Your task to perform on an android device: set the timer Image 0: 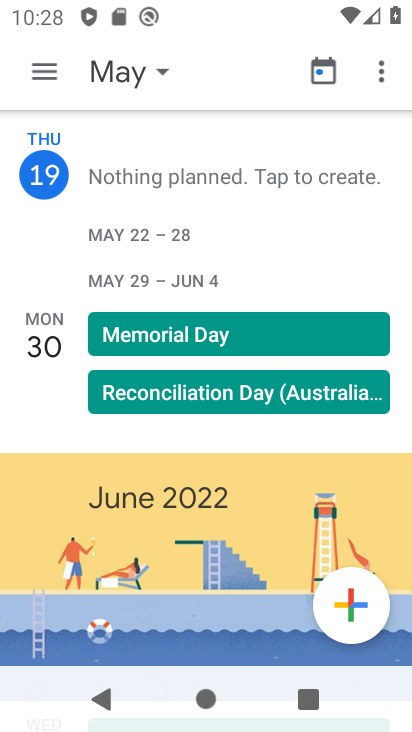
Step 0: press back button
Your task to perform on an android device: set the timer Image 1: 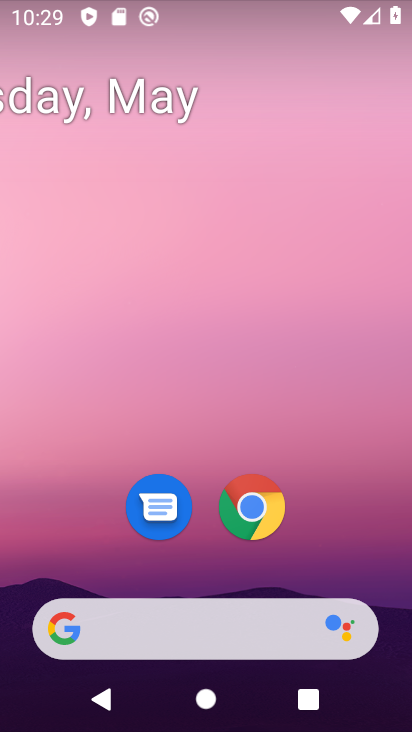
Step 1: drag from (356, 513) to (249, 35)
Your task to perform on an android device: set the timer Image 2: 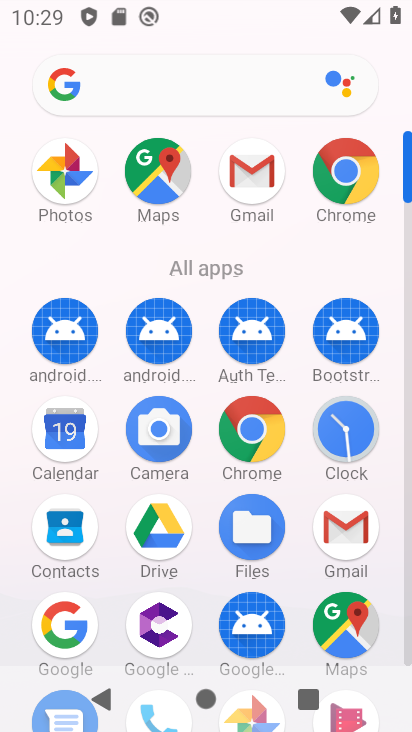
Step 2: drag from (12, 509) to (14, 213)
Your task to perform on an android device: set the timer Image 3: 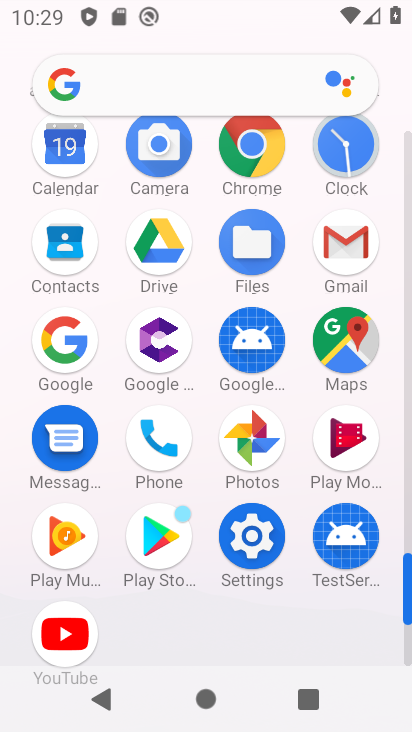
Step 3: click (341, 142)
Your task to perform on an android device: set the timer Image 4: 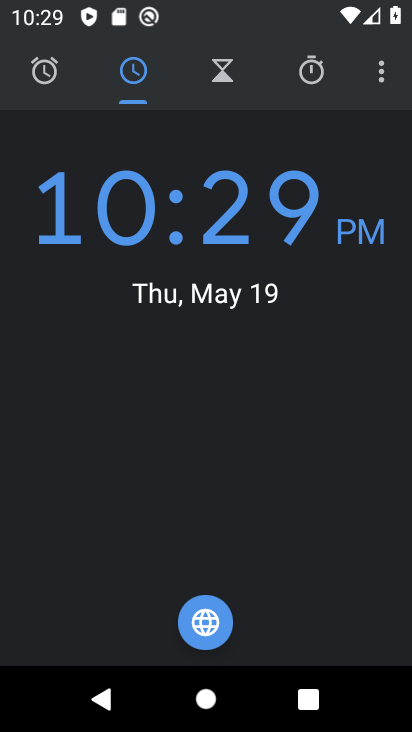
Step 4: click (53, 81)
Your task to perform on an android device: set the timer Image 5: 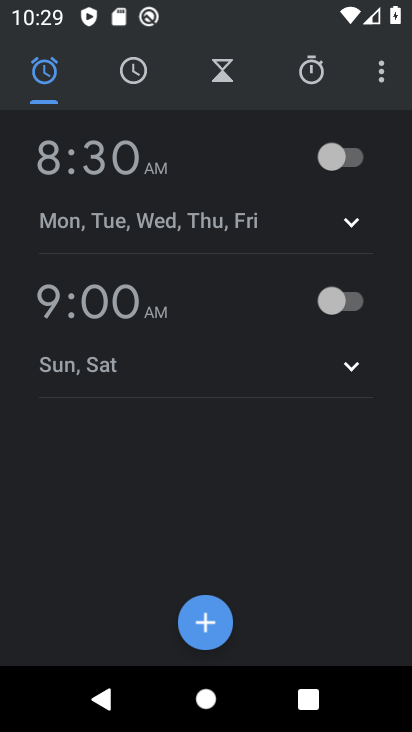
Step 5: click (238, 66)
Your task to perform on an android device: set the timer Image 6: 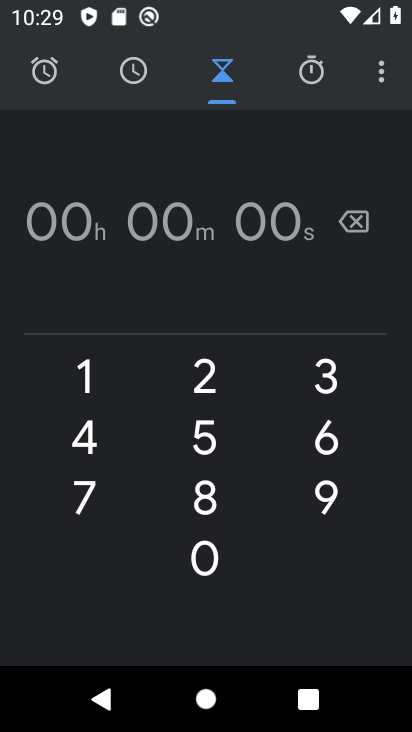
Step 6: click (317, 70)
Your task to perform on an android device: set the timer Image 7: 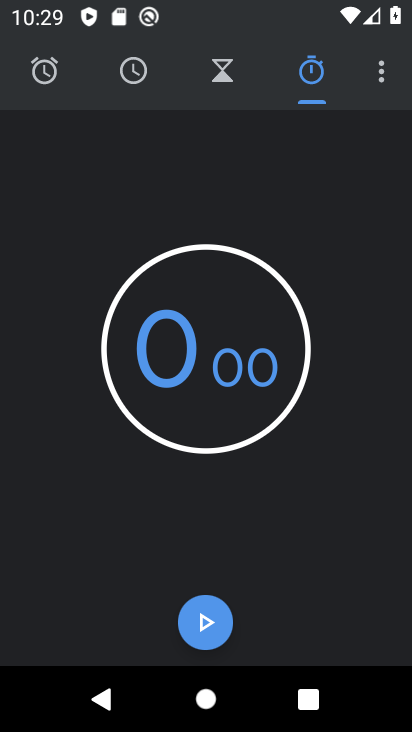
Step 7: click (230, 73)
Your task to perform on an android device: set the timer Image 8: 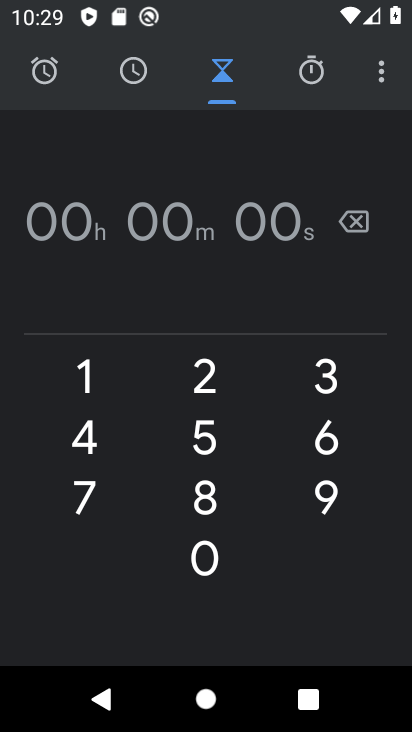
Step 8: click (207, 375)
Your task to perform on an android device: set the timer Image 9: 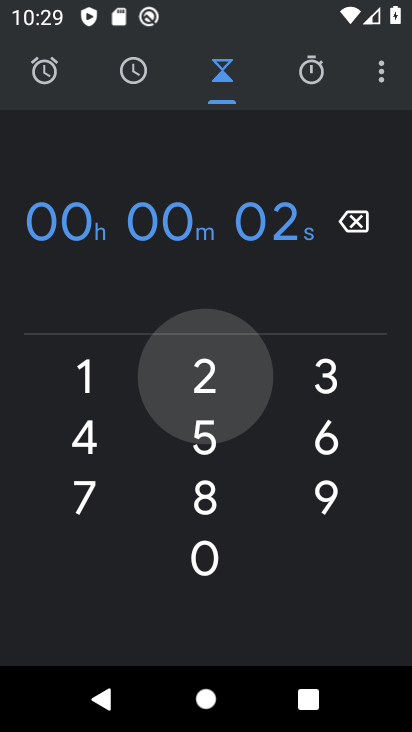
Step 9: click (199, 445)
Your task to perform on an android device: set the timer Image 10: 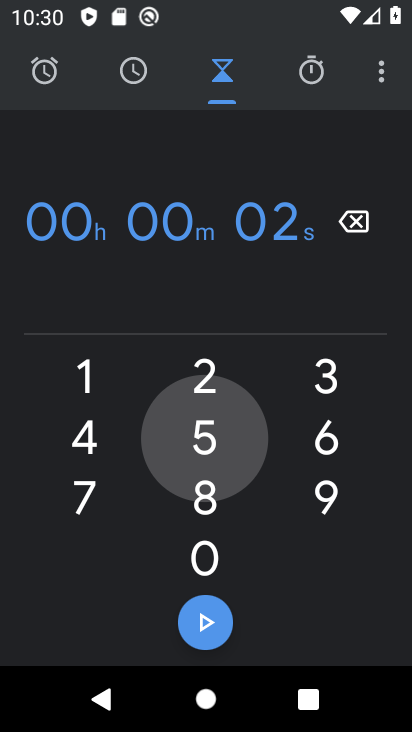
Step 10: click (192, 512)
Your task to perform on an android device: set the timer Image 11: 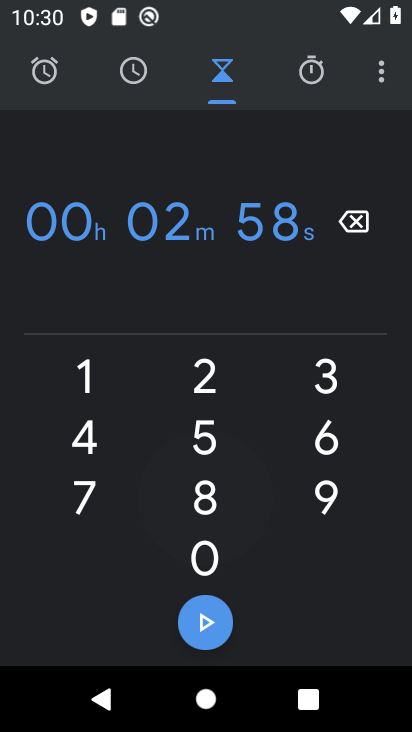
Step 11: click (63, 501)
Your task to perform on an android device: set the timer Image 12: 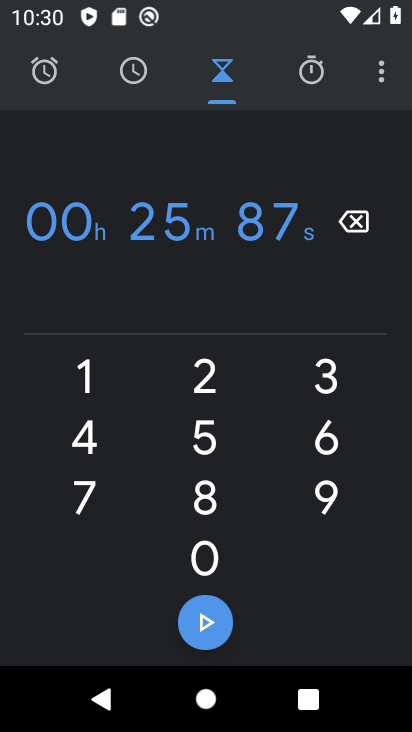
Step 12: click (208, 618)
Your task to perform on an android device: set the timer Image 13: 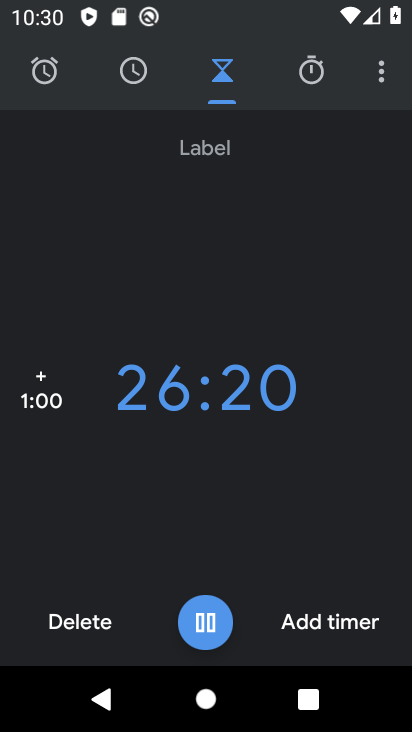
Step 13: task complete